Your task to perform on an android device: set an alarm Image 0: 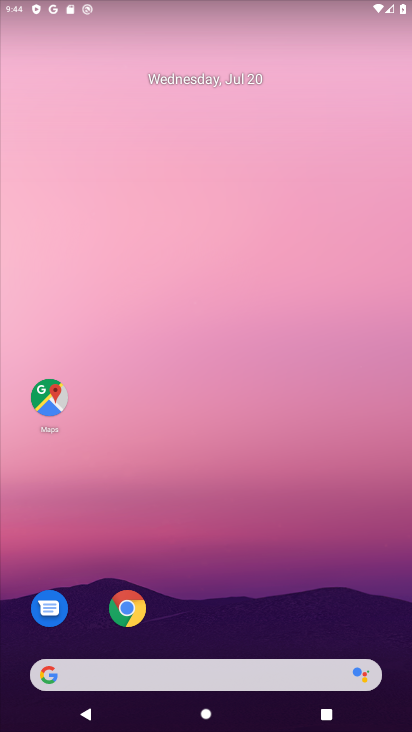
Step 0: press home button
Your task to perform on an android device: set an alarm Image 1: 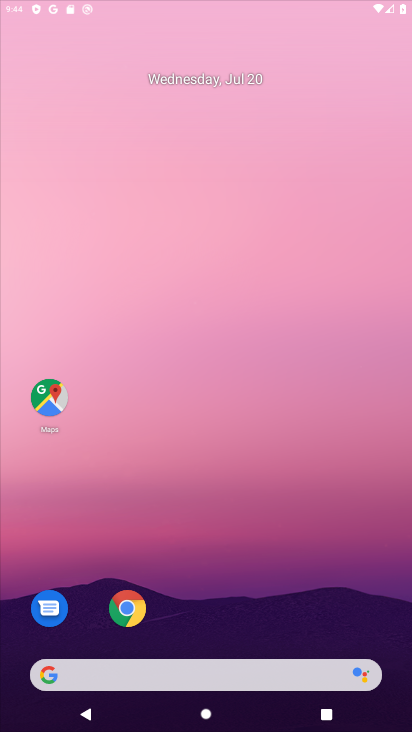
Step 1: drag from (218, 633) to (254, 363)
Your task to perform on an android device: set an alarm Image 2: 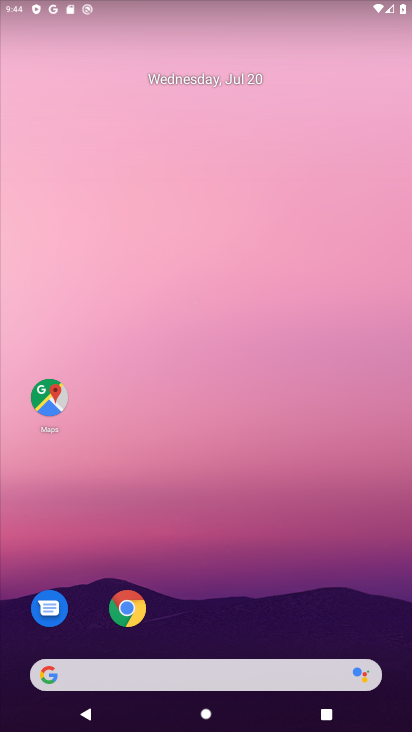
Step 2: drag from (219, 627) to (280, 68)
Your task to perform on an android device: set an alarm Image 3: 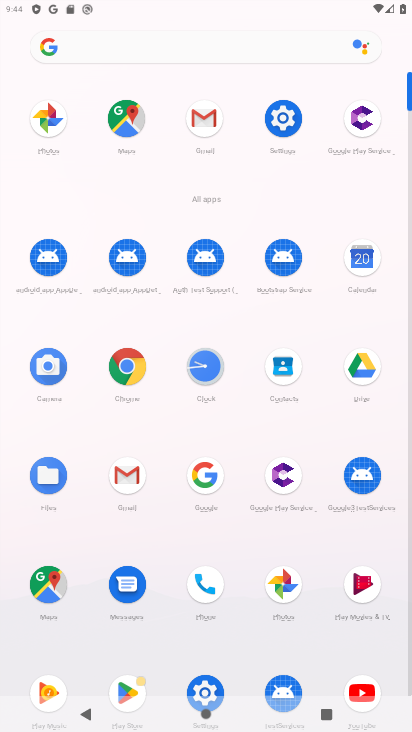
Step 3: click (204, 362)
Your task to perform on an android device: set an alarm Image 4: 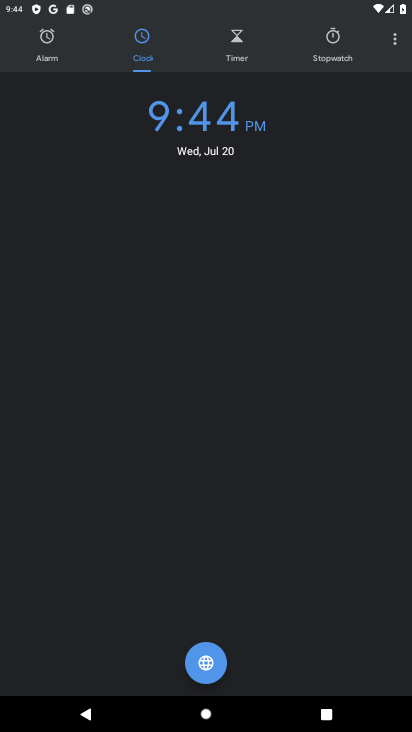
Step 4: click (54, 38)
Your task to perform on an android device: set an alarm Image 5: 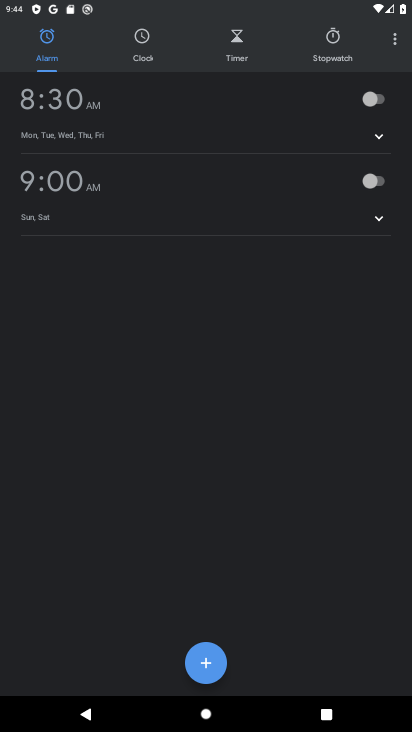
Step 5: click (372, 103)
Your task to perform on an android device: set an alarm Image 6: 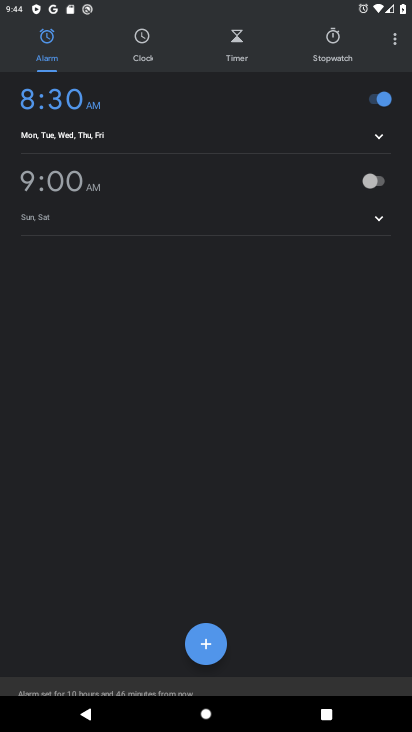
Step 6: task complete